Your task to perform on an android device: Open Google Maps and go to "Timeline" Image 0: 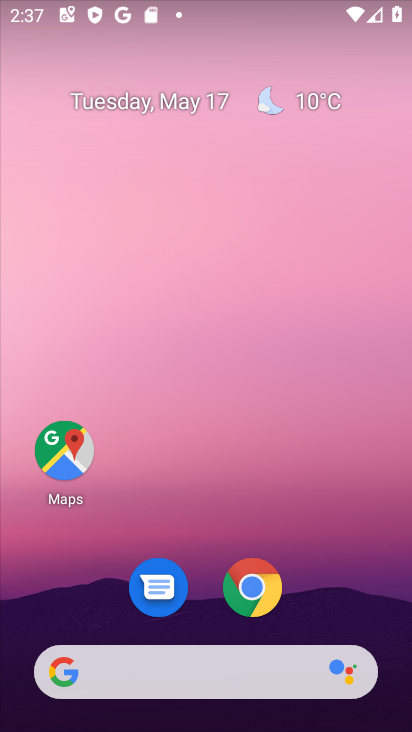
Step 0: drag from (321, 602) to (218, 28)
Your task to perform on an android device: Open Google Maps and go to "Timeline" Image 1: 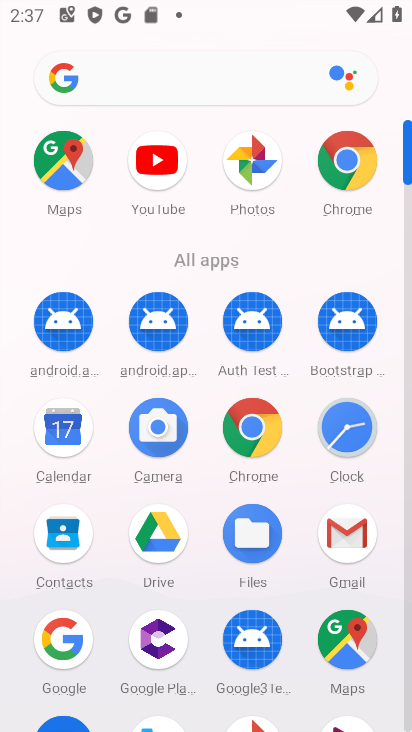
Step 1: drag from (23, 626) to (7, 324)
Your task to perform on an android device: Open Google Maps and go to "Timeline" Image 2: 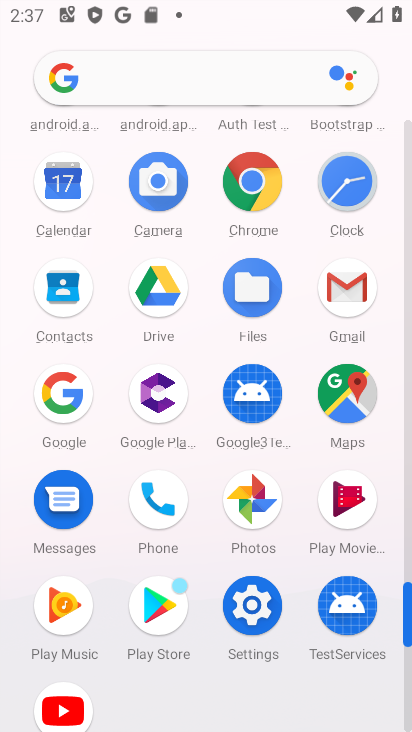
Step 2: click (338, 382)
Your task to perform on an android device: Open Google Maps and go to "Timeline" Image 3: 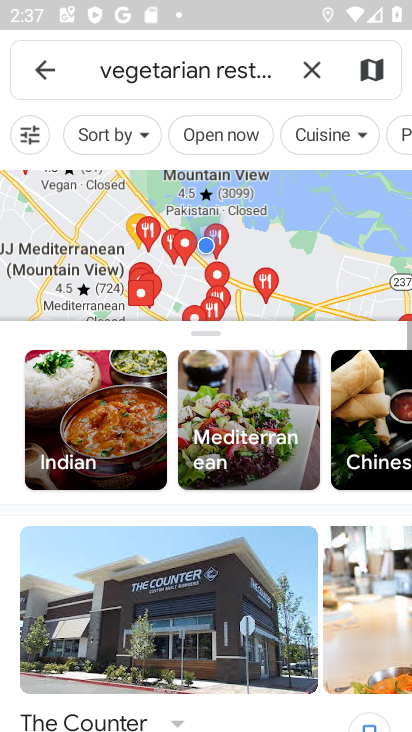
Step 3: click (312, 78)
Your task to perform on an android device: Open Google Maps and go to "Timeline" Image 4: 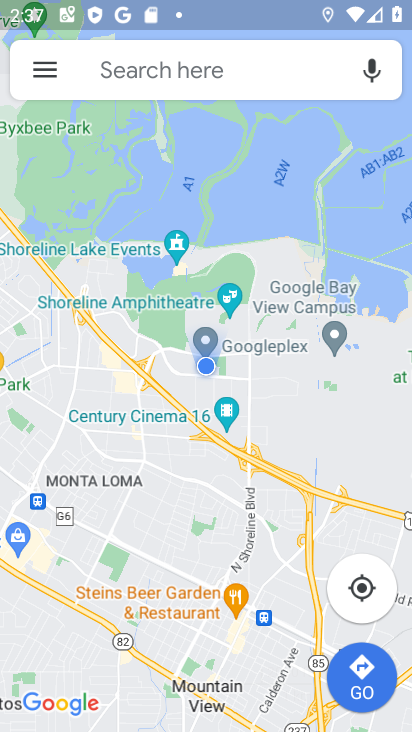
Step 4: click (43, 59)
Your task to perform on an android device: Open Google Maps and go to "Timeline" Image 5: 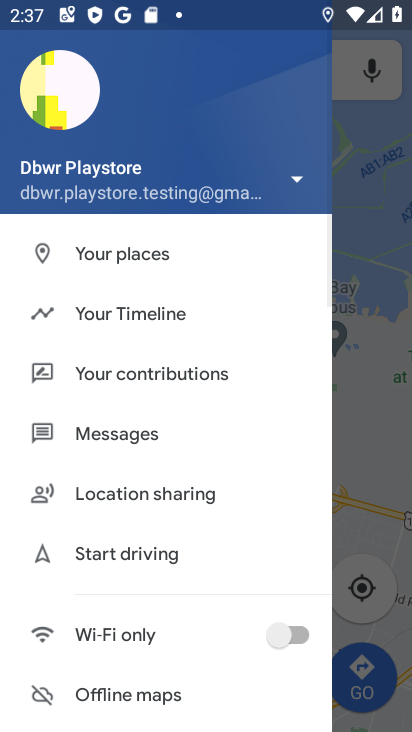
Step 5: click (107, 309)
Your task to perform on an android device: Open Google Maps and go to "Timeline" Image 6: 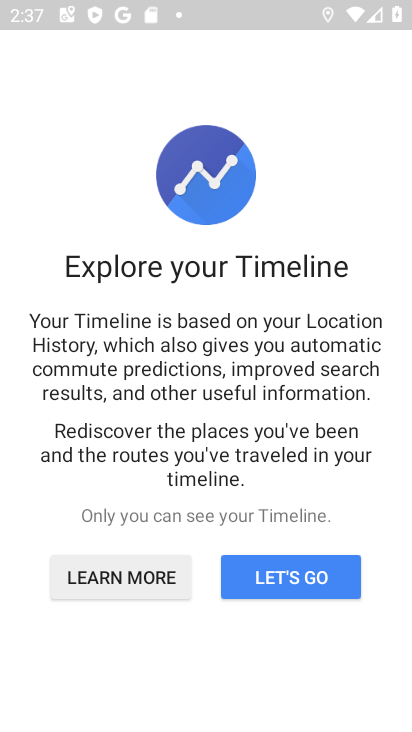
Step 6: click (298, 586)
Your task to perform on an android device: Open Google Maps and go to "Timeline" Image 7: 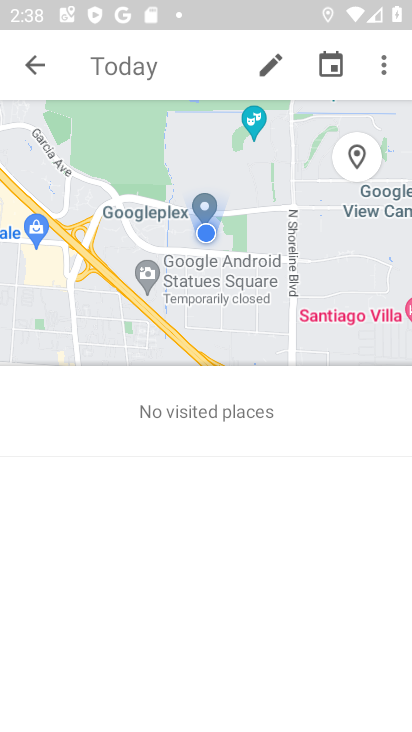
Step 7: task complete